Your task to perform on an android device: Go to Yahoo.com Image 0: 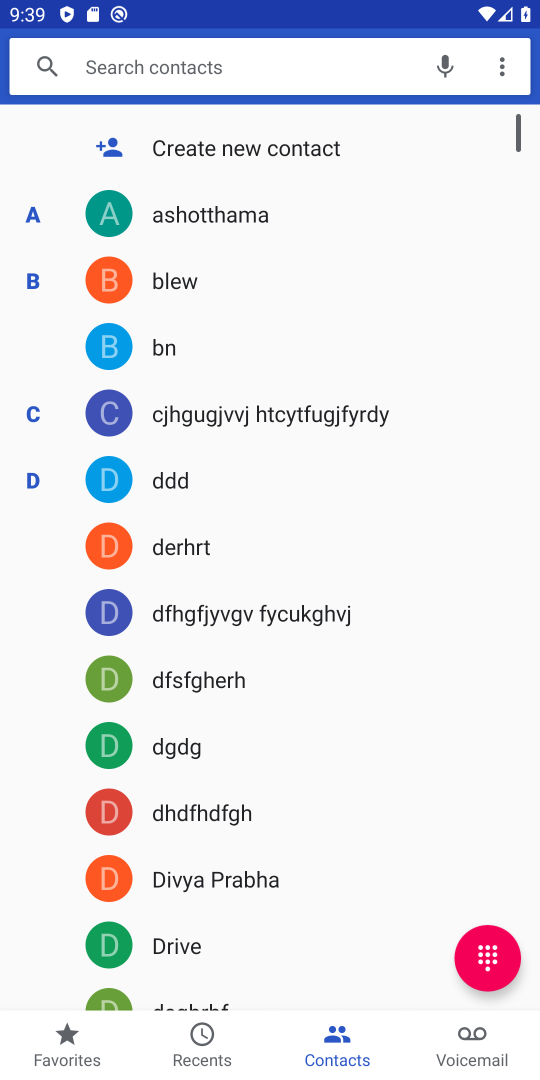
Step 0: press home button
Your task to perform on an android device: Go to Yahoo.com Image 1: 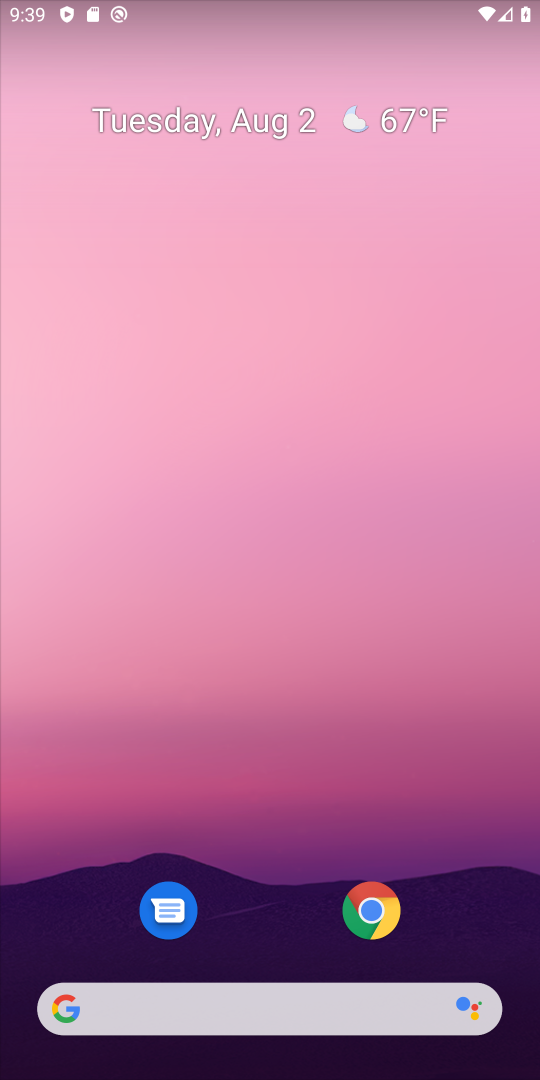
Step 1: click (381, 908)
Your task to perform on an android device: Go to Yahoo.com Image 2: 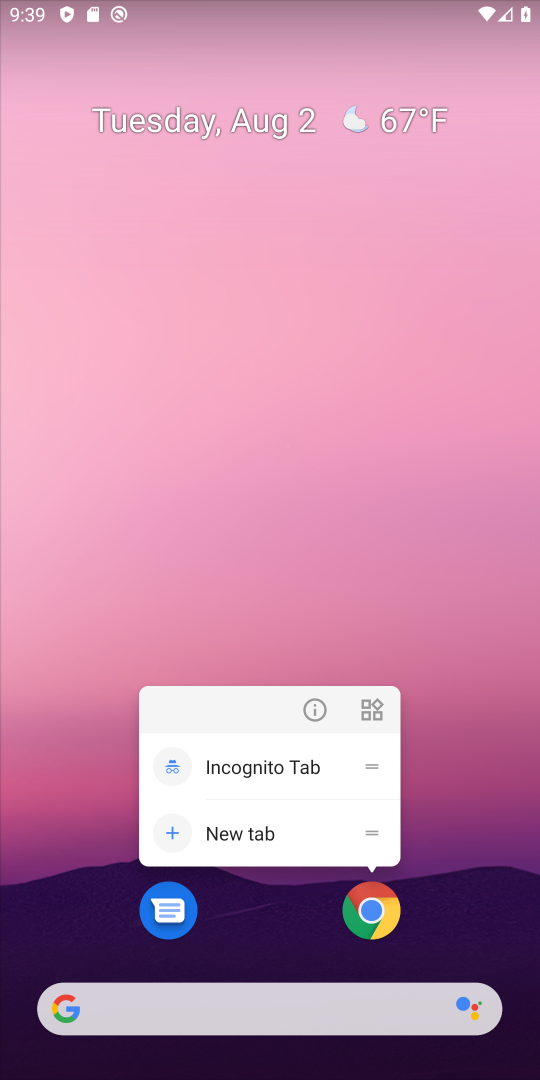
Step 2: click (365, 896)
Your task to perform on an android device: Go to Yahoo.com Image 3: 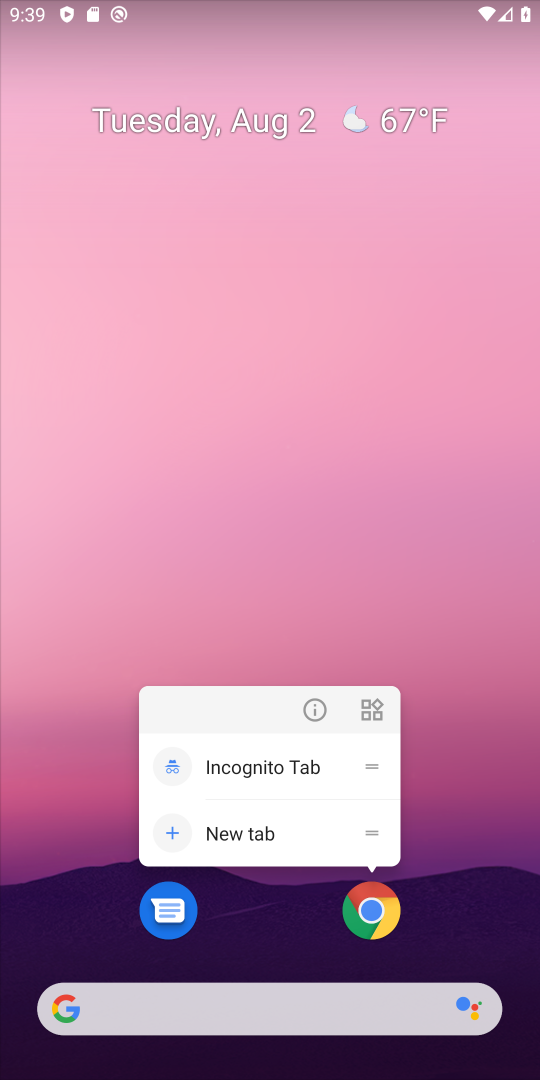
Step 3: click (365, 912)
Your task to perform on an android device: Go to Yahoo.com Image 4: 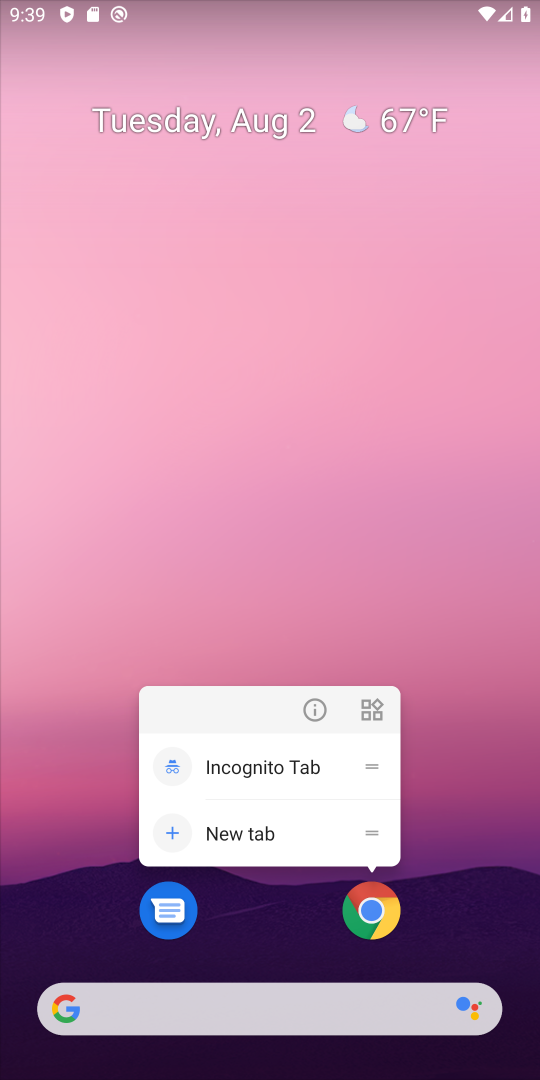
Step 4: click (269, 957)
Your task to perform on an android device: Go to Yahoo.com Image 5: 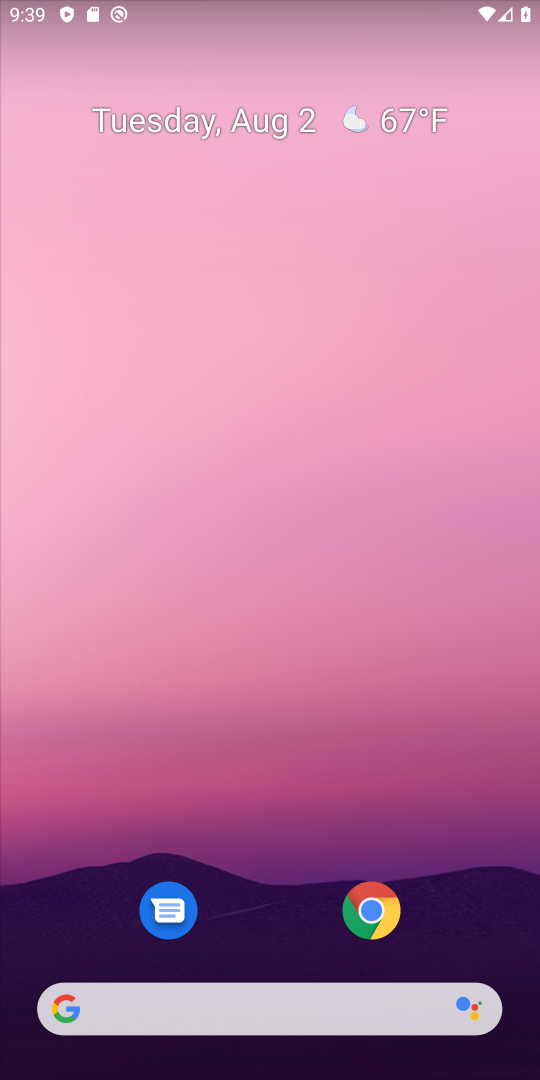
Step 5: drag from (246, 979) to (284, 463)
Your task to perform on an android device: Go to Yahoo.com Image 6: 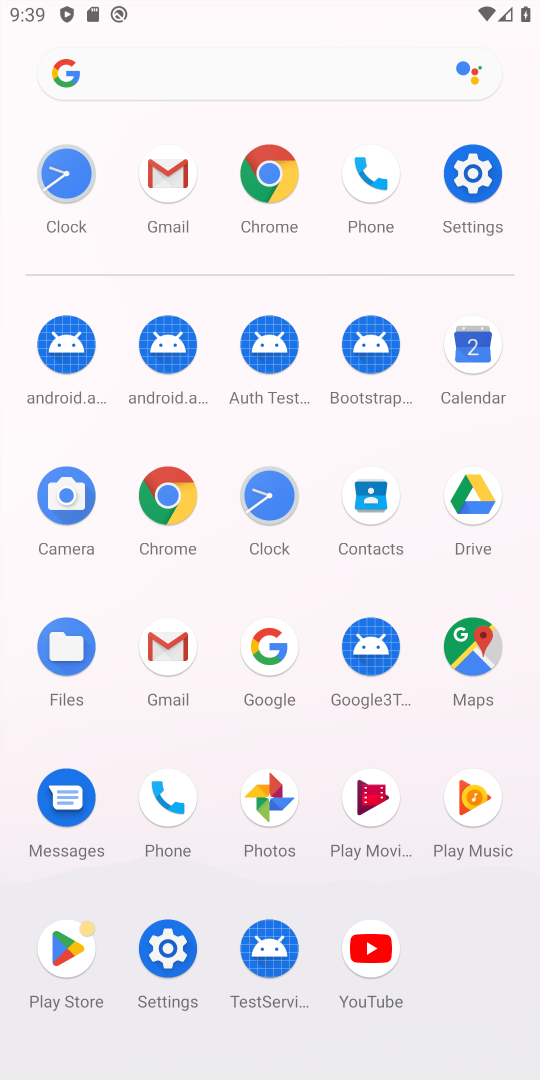
Step 6: click (269, 181)
Your task to perform on an android device: Go to Yahoo.com Image 7: 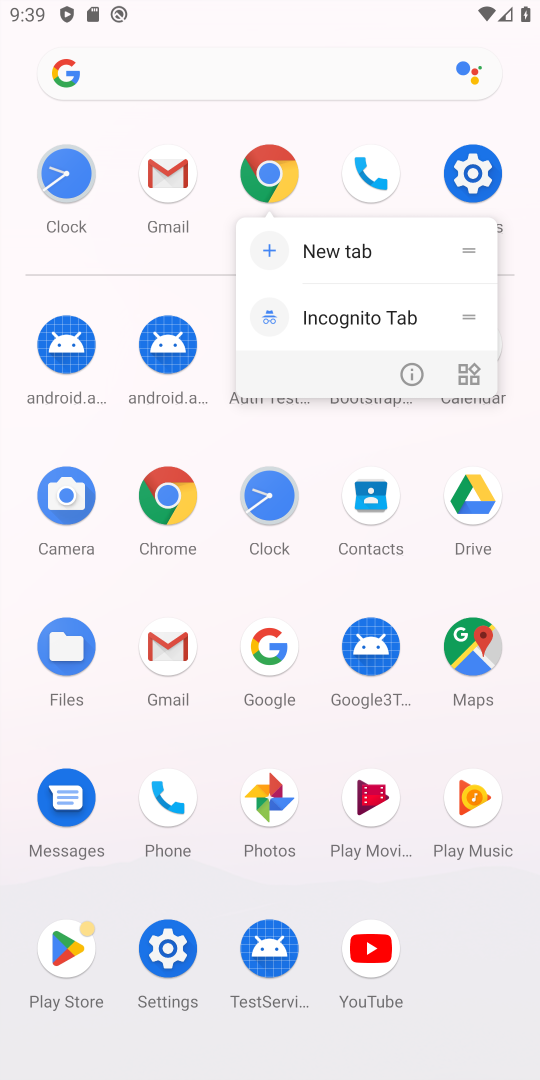
Step 7: click (260, 176)
Your task to perform on an android device: Go to Yahoo.com Image 8: 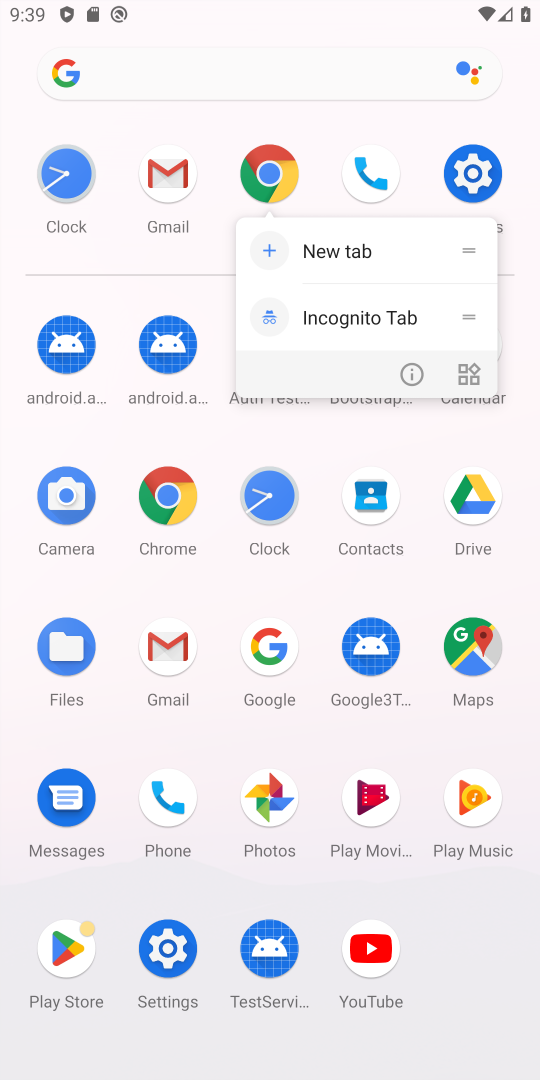
Step 8: click (260, 176)
Your task to perform on an android device: Go to Yahoo.com Image 9: 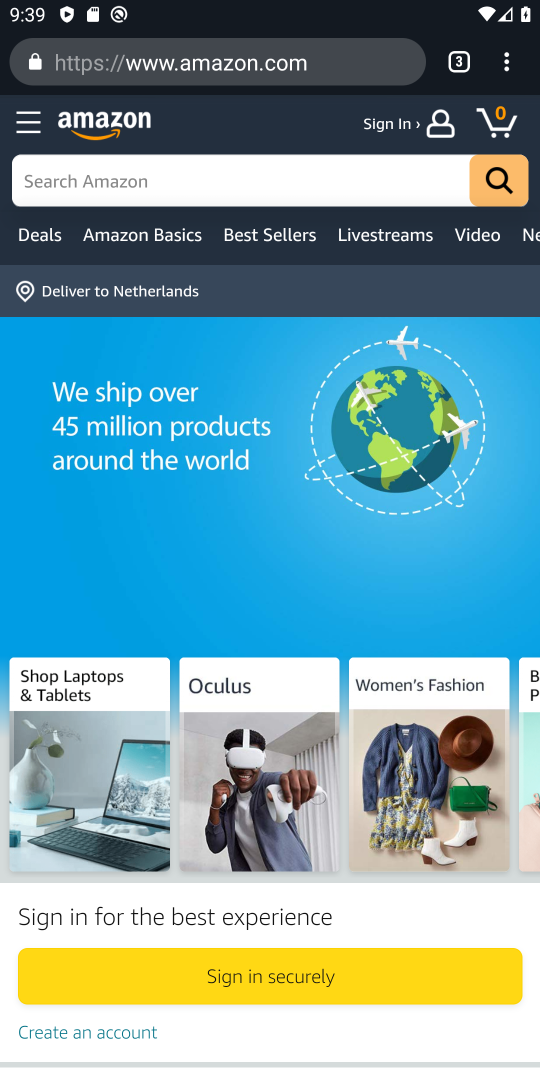
Step 9: click (518, 54)
Your task to perform on an android device: Go to Yahoo.com Image 10: 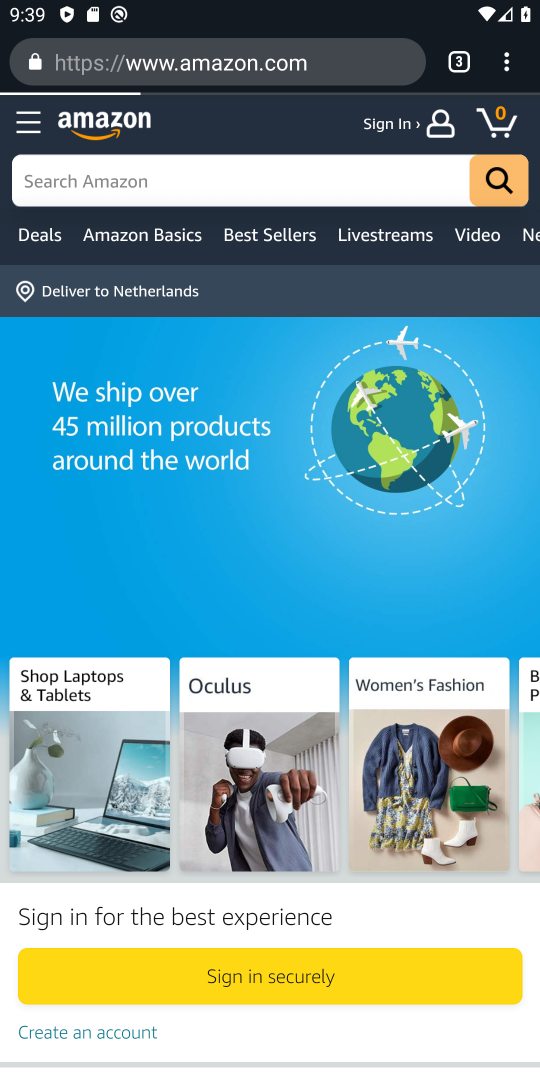
Step 10: click (518, 54)
Your task to perform on an android device: Go to Yahoo.com Image 11: 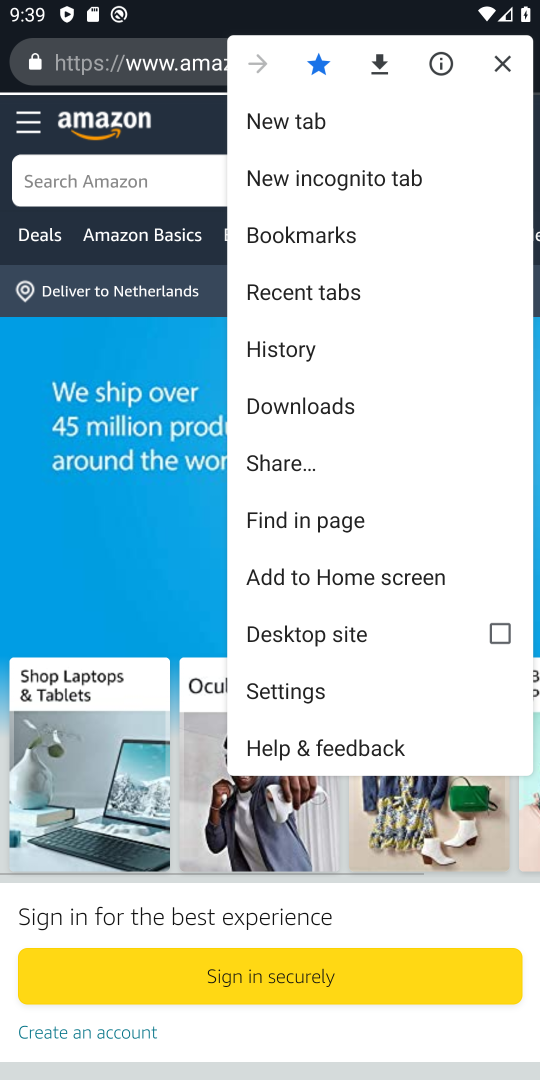
Step 11: click (258, 126)
Your task to perform on an android device: Go to Yahoo.com Image 12: 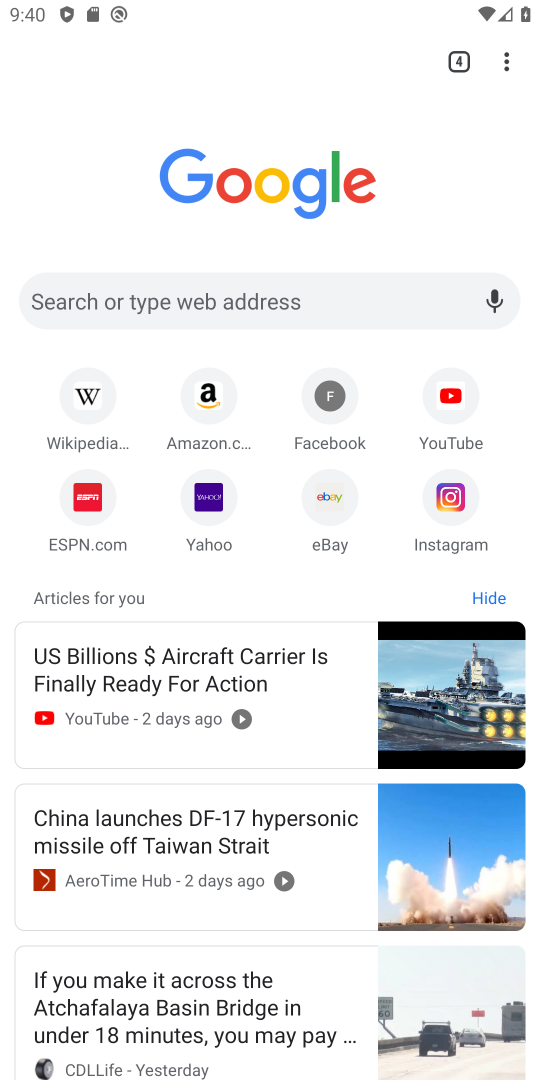
Step 12: click (207, 506)
Your task to perform on an android device: Go to Yahoo.com Image 13: 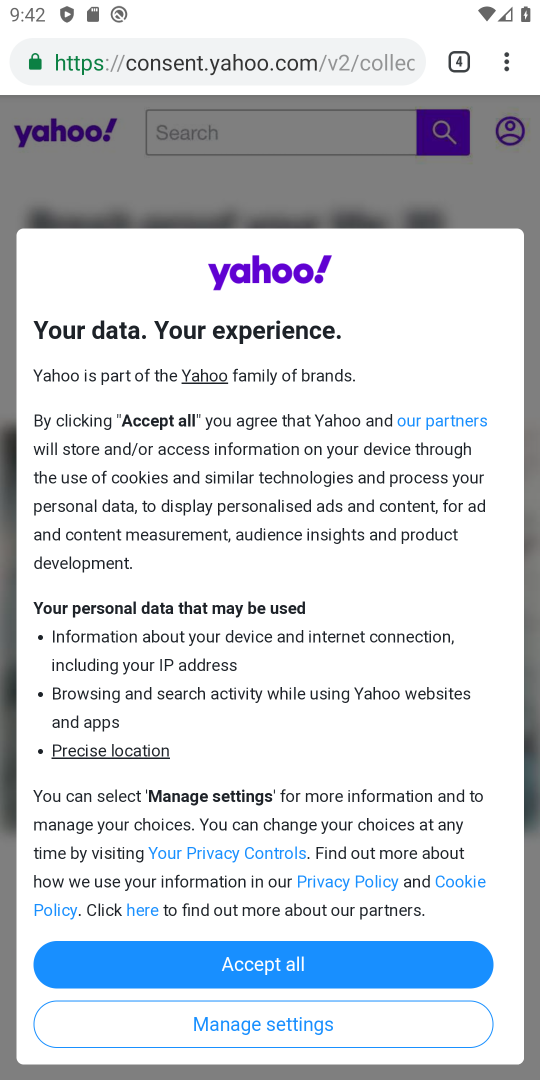
Step 13: task complete